Your task to perform on an android device: Open Google Image 0: 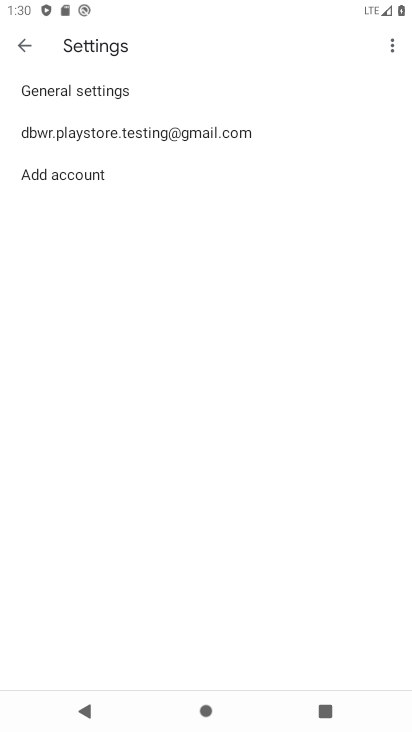
Step 0: press home button
Your task to perform on an android device: Open Google Image 1: 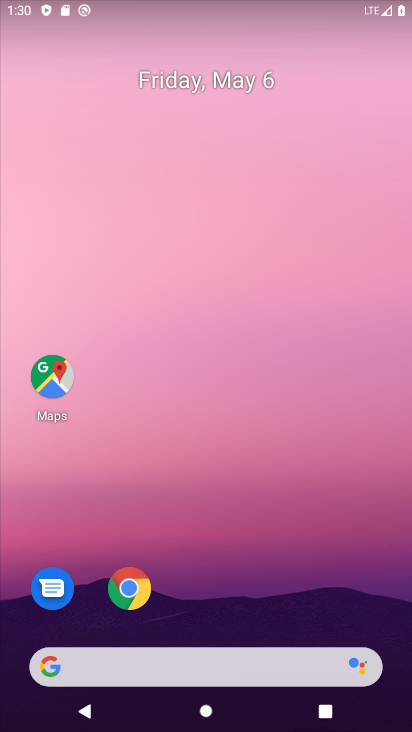
Step 1: drag from (285, 567) to (283, 182)
Your task to perform on an android device: Open Google Image 2: 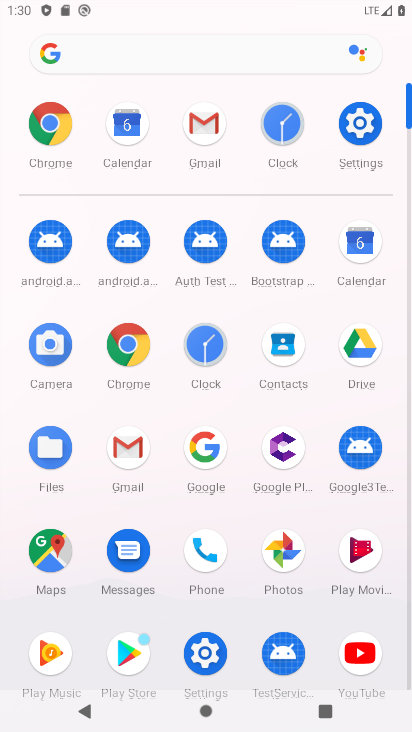
Step 2: click (199, 443)
Your task to perform on an android device: Open Google Image 3: 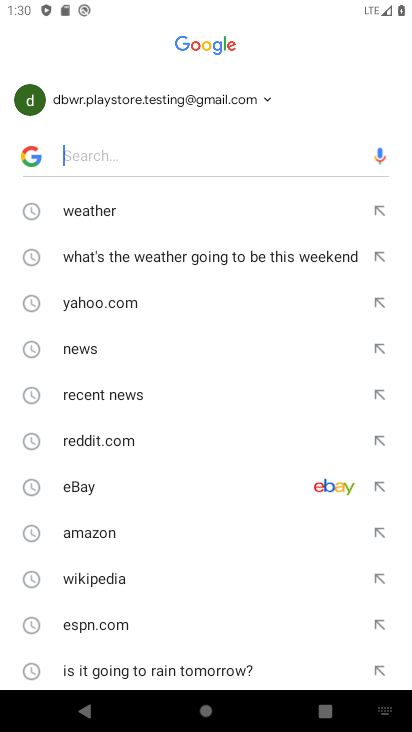
Step 3: task complete